Your task to perform on an android device: turn off sleep mode Image 0: 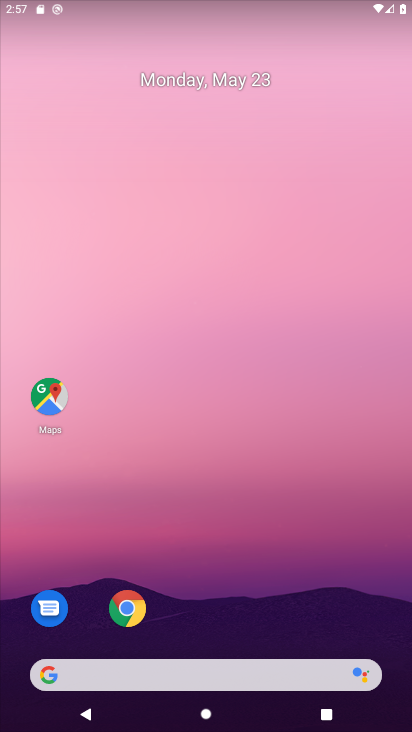
Step 0: drag from (213, 629) to (350, 1)
Your task to perform on an android device: turn off sleep mode Image 1: 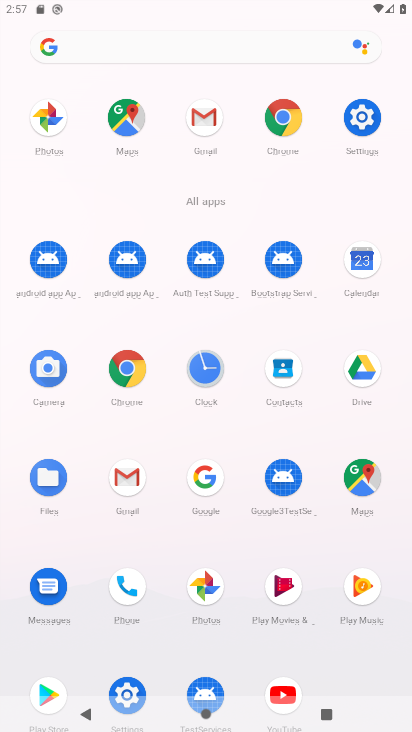
Step 1: click (369, 116)
Your task to perform on an android device: turn off sleep mode Image 2: 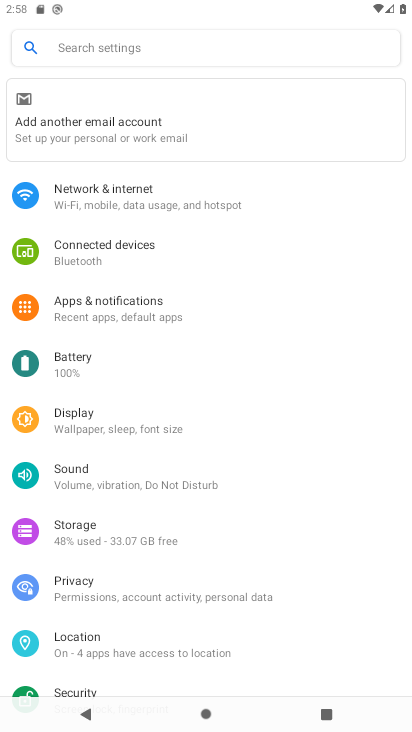
Step 2: click (196, 418)
Your task to perform on an android device: turn off sleep mode Image 3: 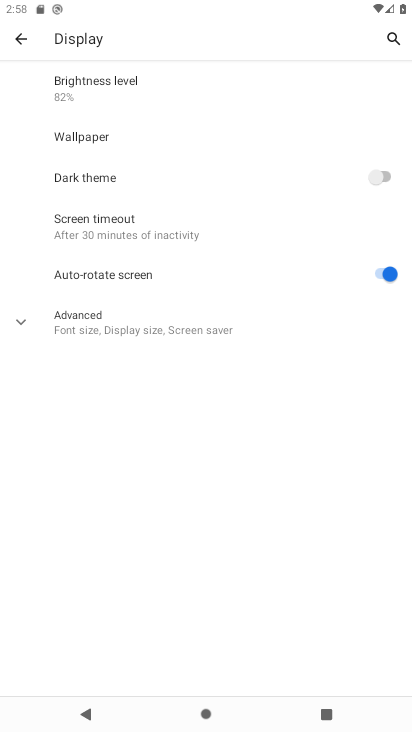
Step 3: click (243, 326)
Your task to perform on an android device: turn off sleep mode Image 4: 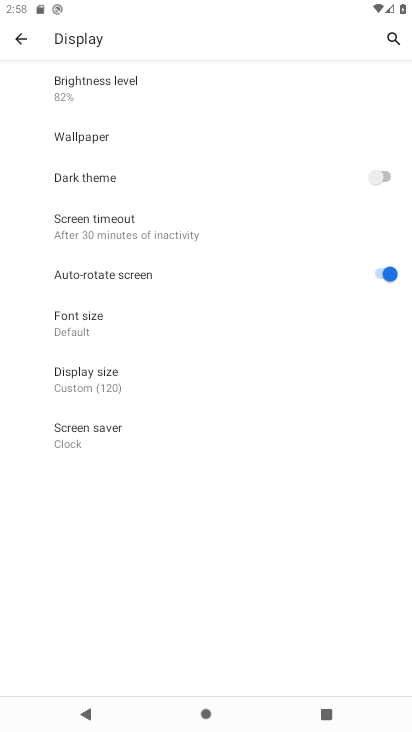
Step 4: task complete